Your task to perform on an android device: When is my next appointment? Image 0: 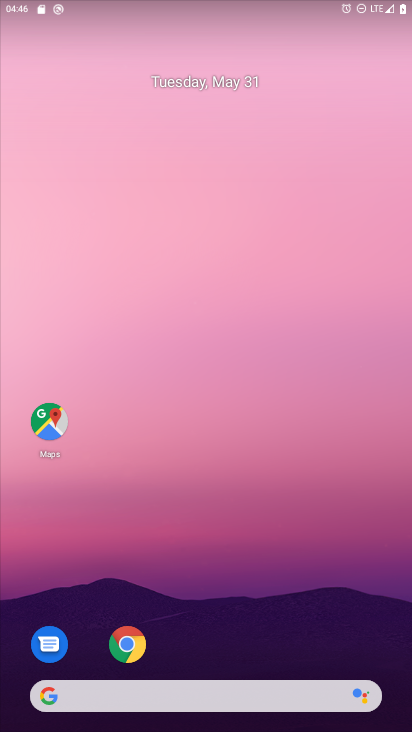
Step 0: drag from (279, 577) to (289, 215)
Your task to perform on an android device: When is my next appointment? Image 1: 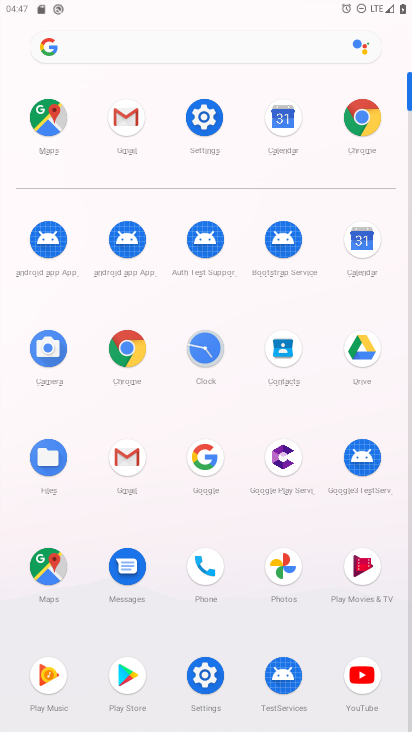
Step 1: click (288, 115)
Your task to perform on an android device: When is my next appointment? Image 2: 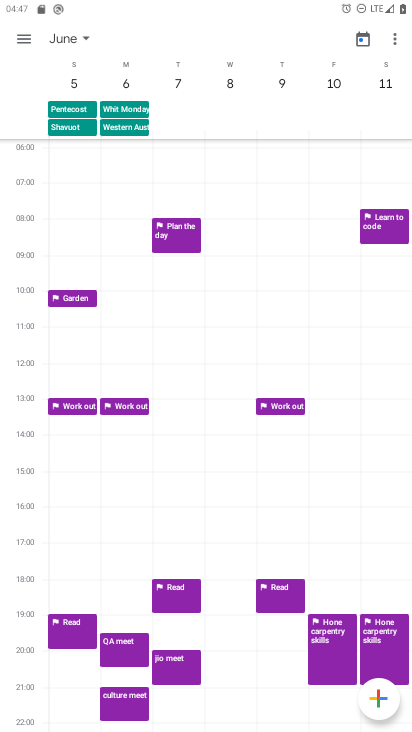
Step 2: task complete